Your task to perform on an android device: turn on javascript in the chrome app Image 0: 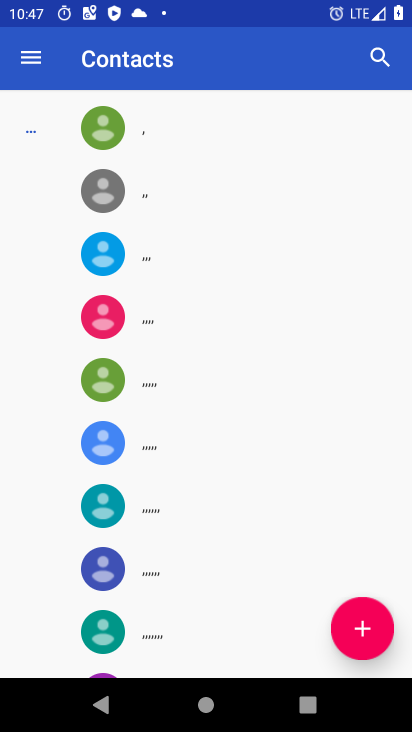
Step 0: press home button
Your task to perform on an android device: turn on javascript in the chrome app Image 1: 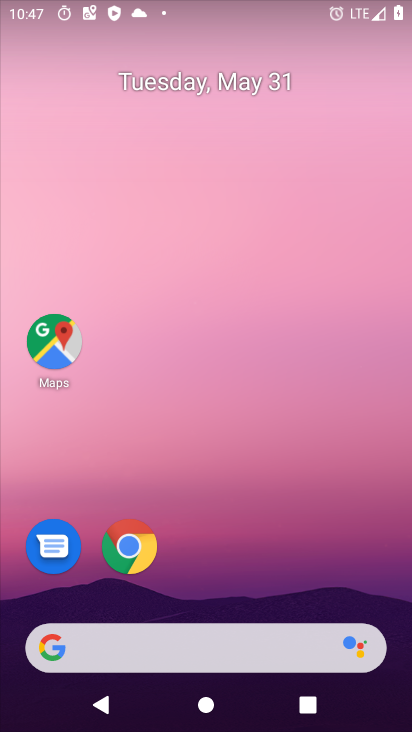
Step 1: click (112, 536)
Your task to perform on an android device: turn on javascript in the chrome app Image 2: 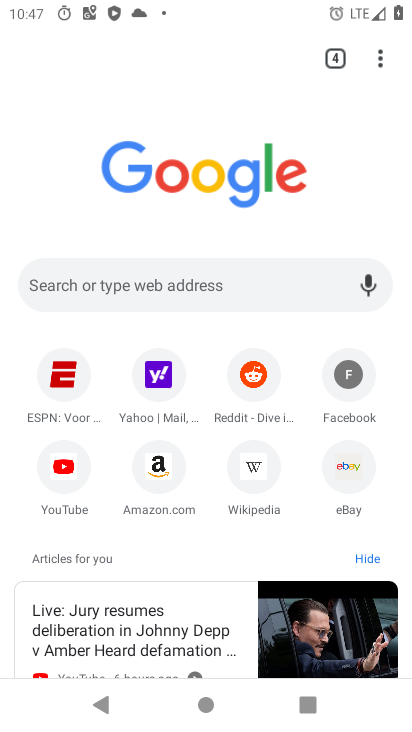
Step 2: click (371, 61)
Your task to perform on an android device: turn on javascript in the chrome app Image 3: 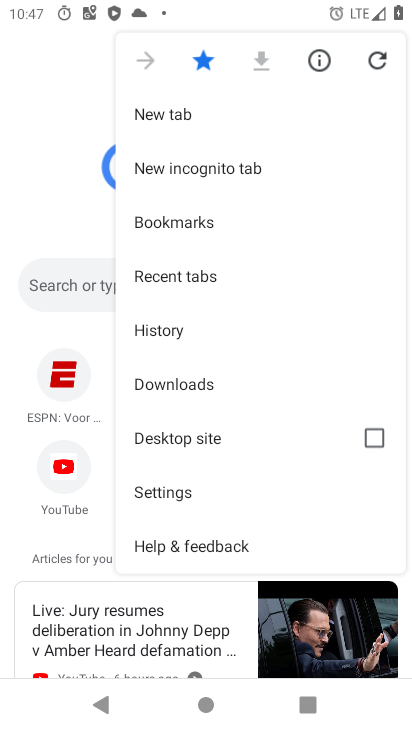
Step 3: click (243, 491)
Your task to perform on an android device: turn on javascript in the chrome app Image 4: 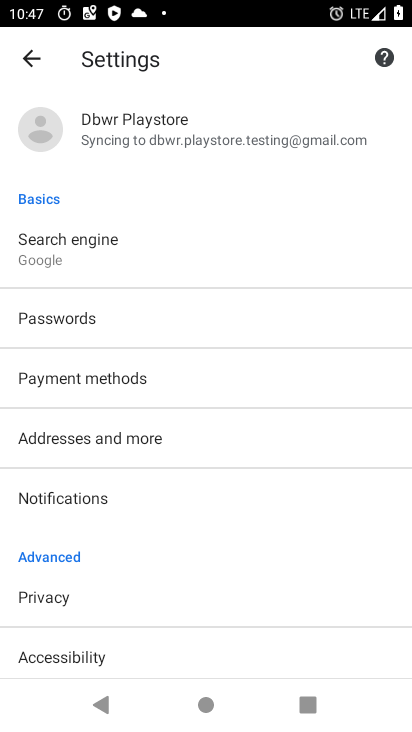
Step 4: drag from (197, 631) to (185, 407)
Your task to perform on an android device: turn on javascript in the chrome app Image 5: 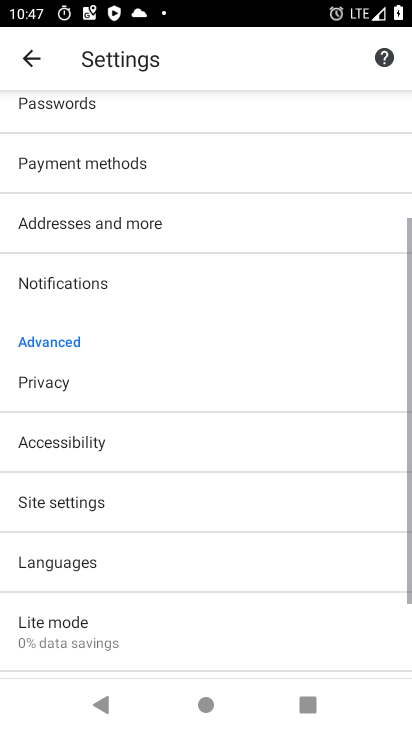
Step 5: click (161, 490)
Your task to perform on an android device: turn on javascript in the chrome app Image 6: 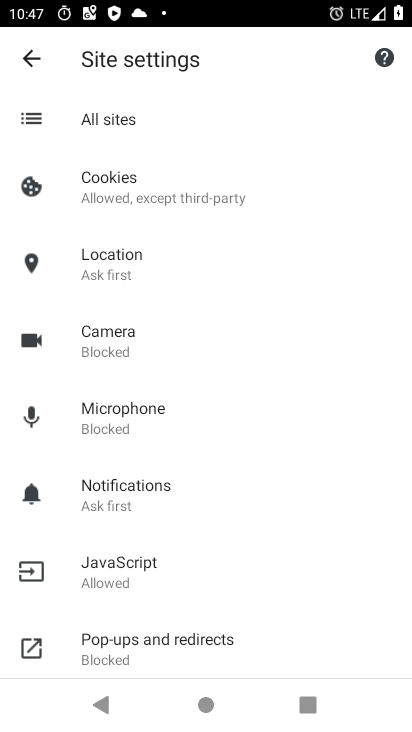
Step 6: click (188, 571)
Your task to perform on an android device: turn on javascript in the chrome app Image 7: 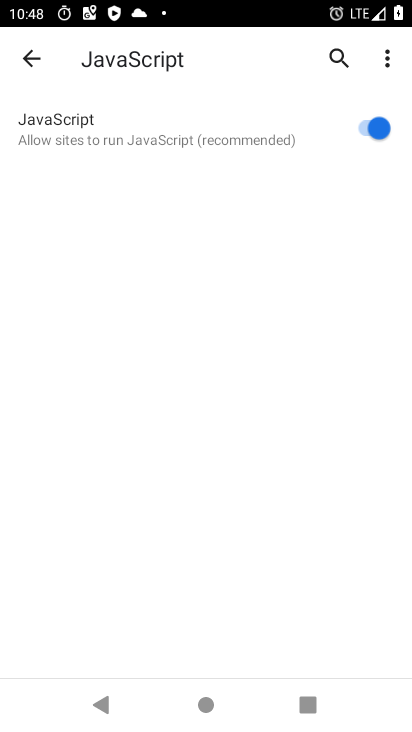
Step 7: task complete